Your task to perform on an android device: Clear the shopping cart on amazon. Image 0: 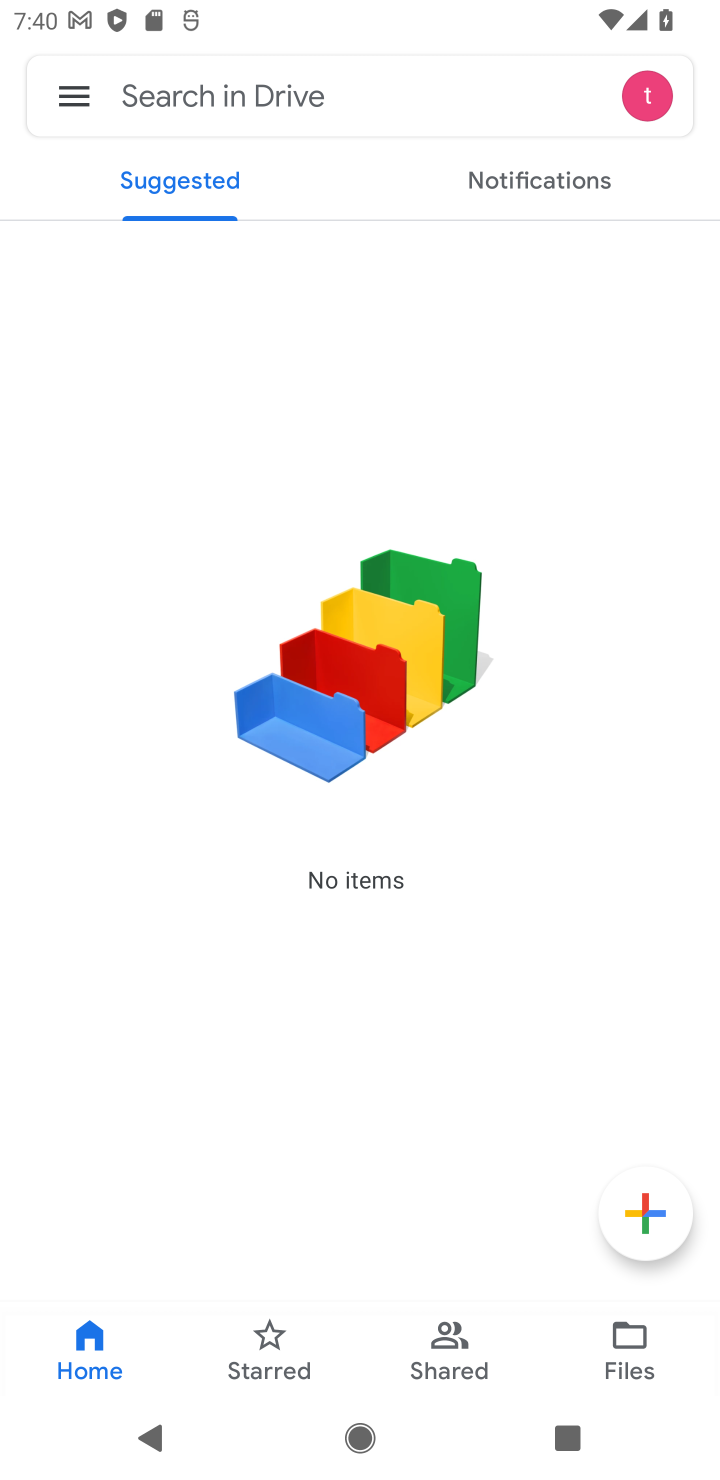
Step 0: press home button
Your task to perform on an android device: Clear the shopping cart on amazon. Image 1: 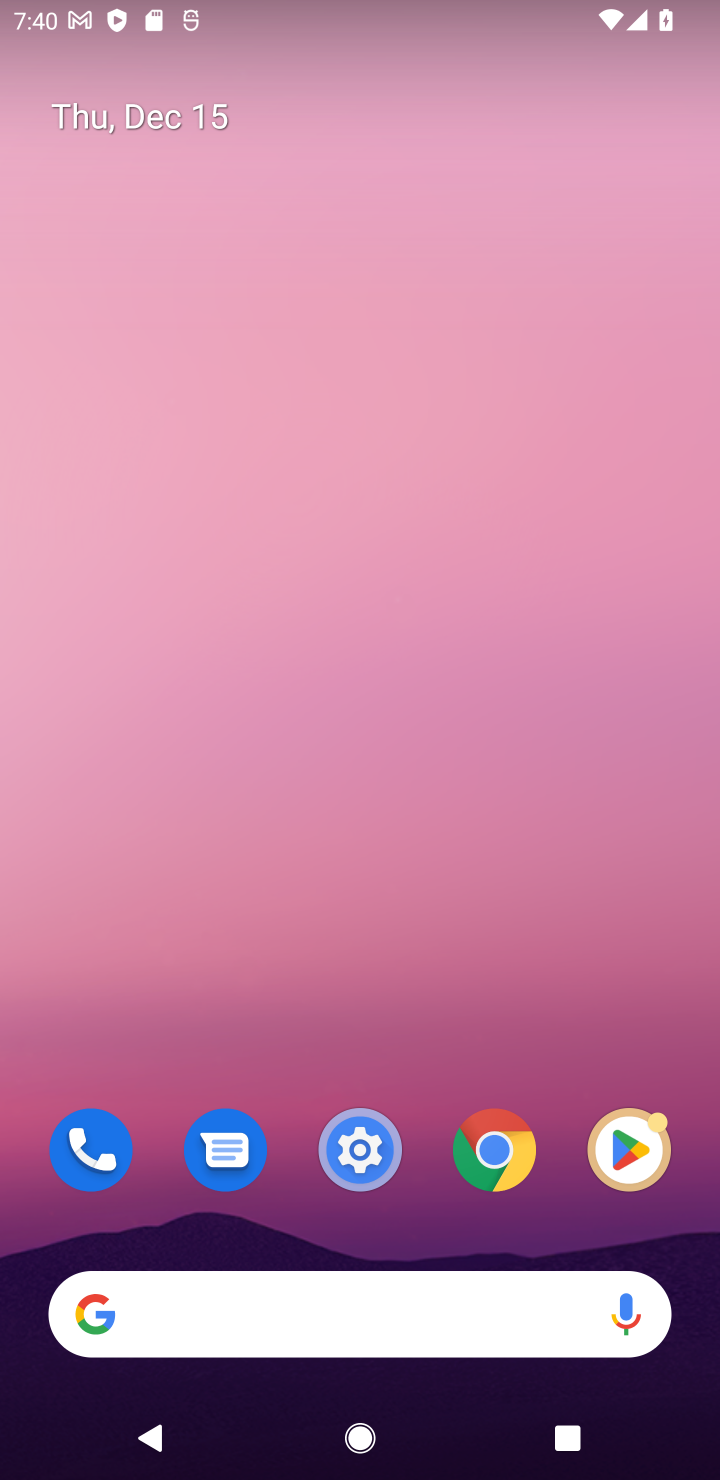
Step 1: click (496, 1143)
Your task to perform on an android device: Clear the shopping cart on amazon. Image 2: 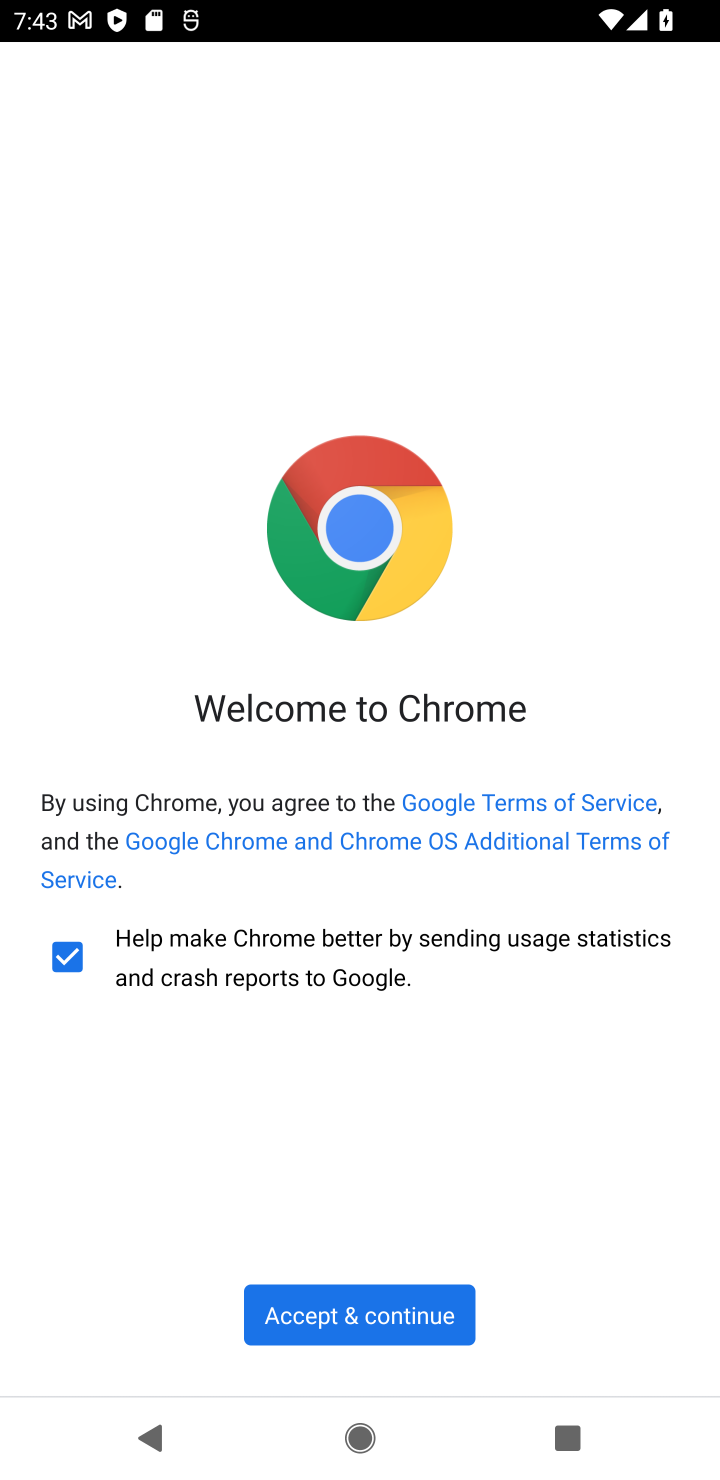
Step 2: click (380, 1320)
Your task to perform on an android device: Clear the shopping cart on amazon. Image 3: 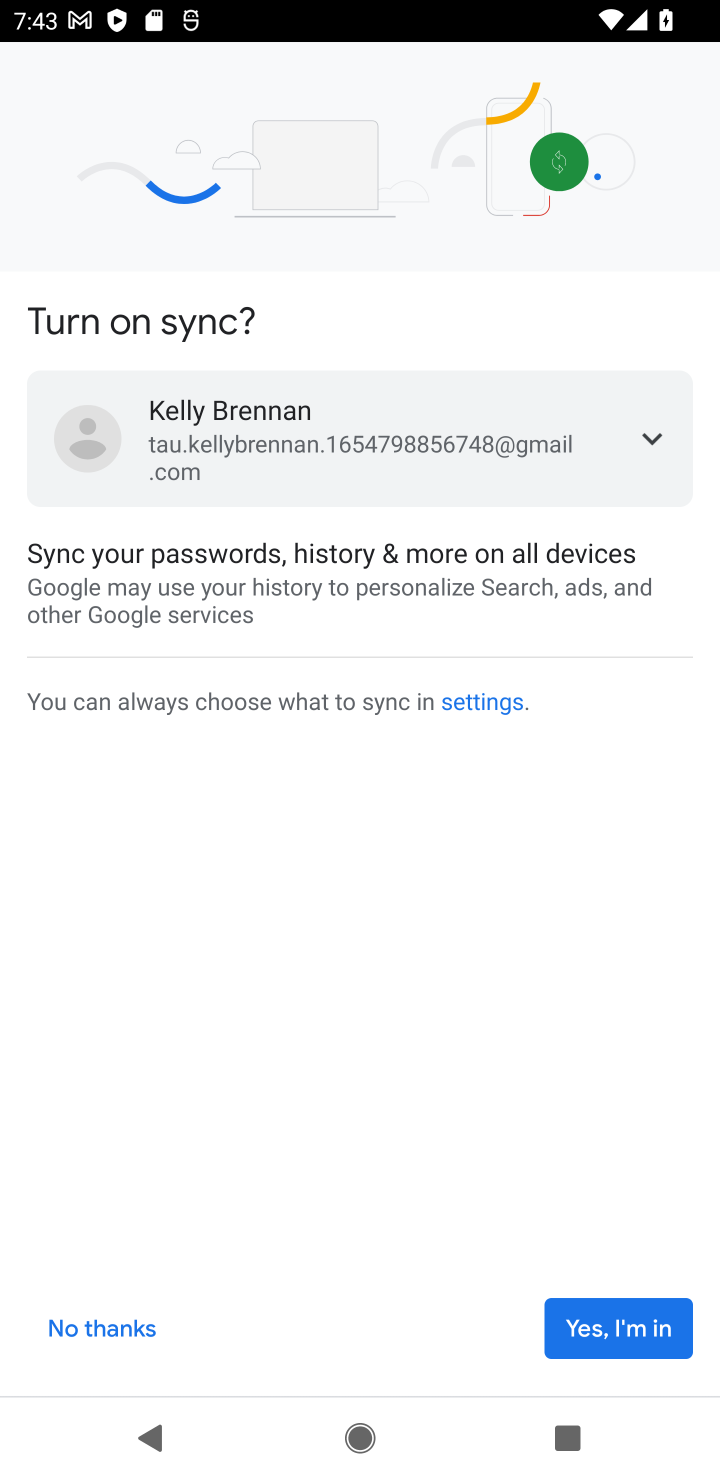
Step 3: click (605, 1331)
Your task to perform on an android device: Clear the shopping cart on amazon. Image 4: 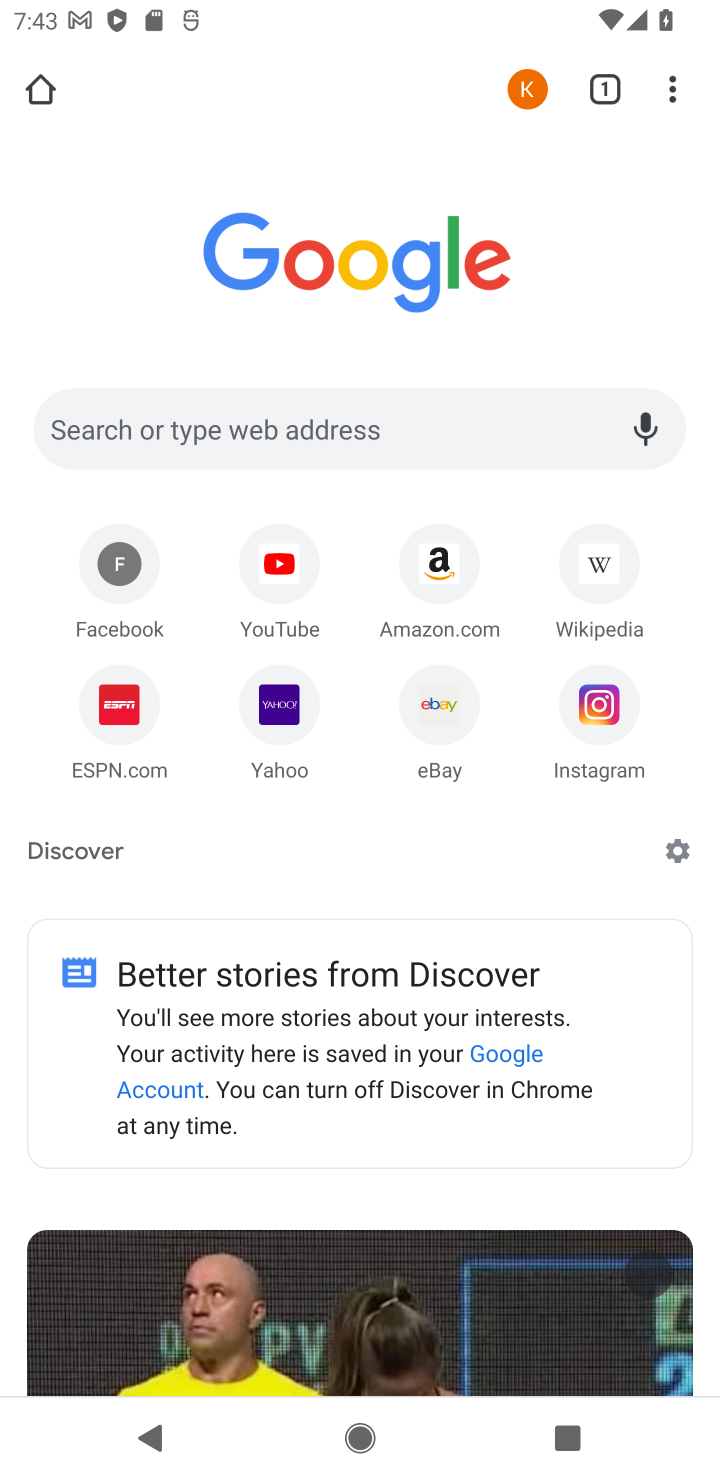
Step 4: click (433, 561)
Your task to perform on an android device: Clear the shopping cart on amazon. Image 5: 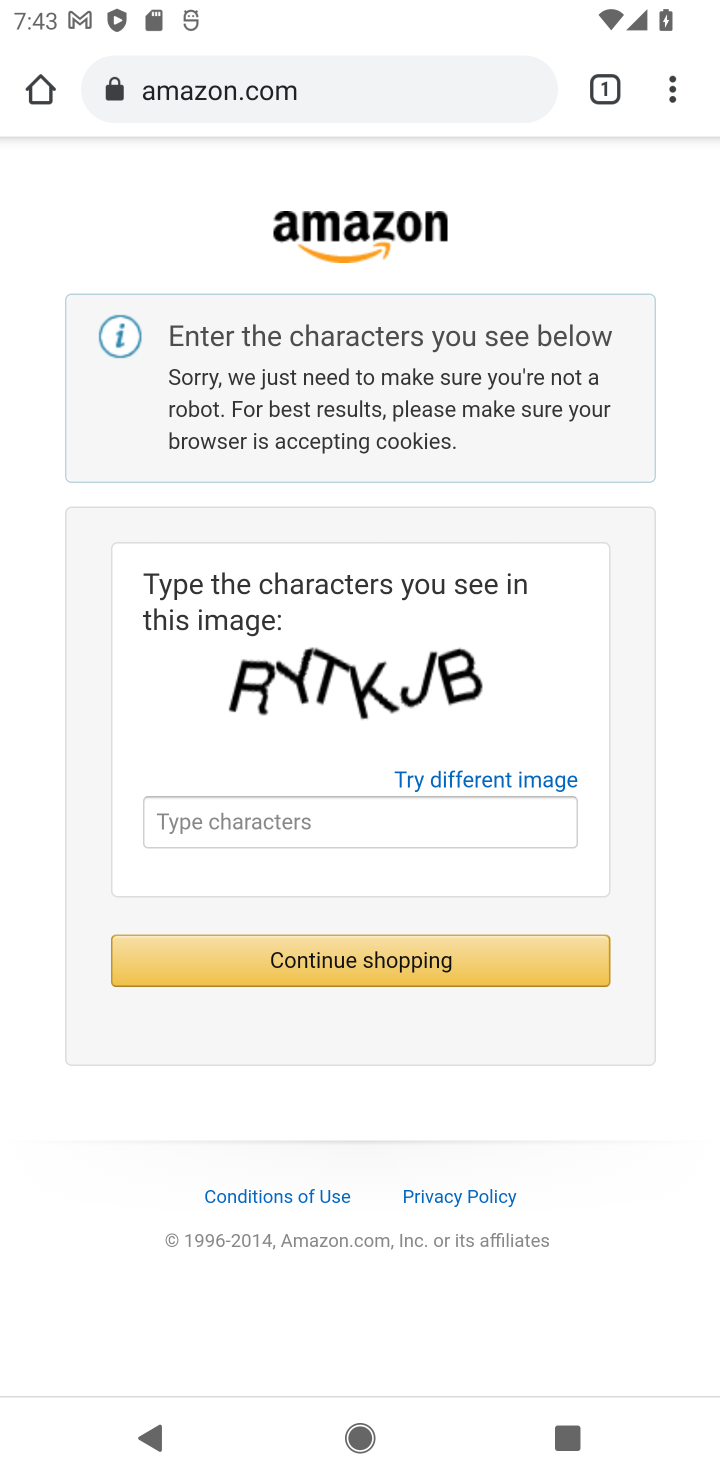
Step 5: click (364, 822)
Your task to perform on an android device: Clear the shopping cart on amazon. Image 6: 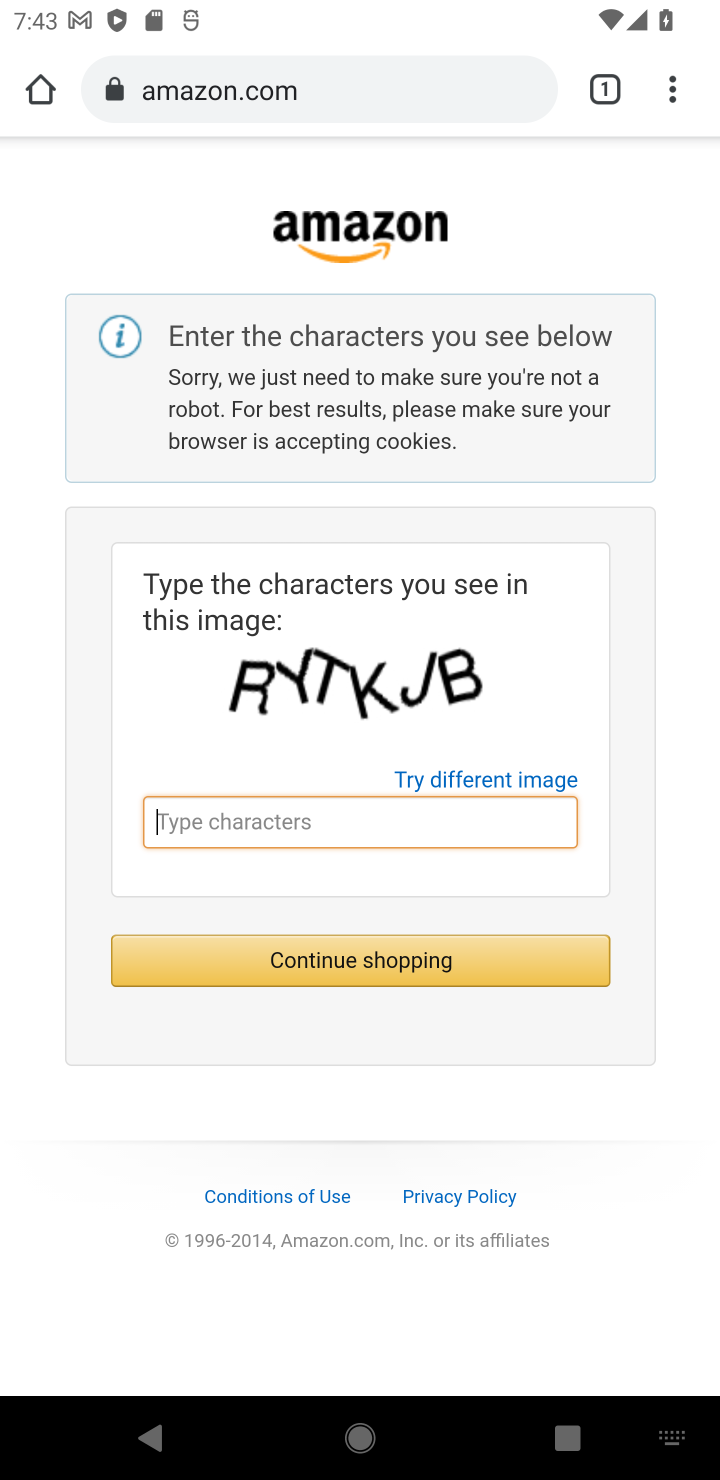
Step 6: type "RYTKJB"
Your task to perform on an android device: Clear the shopping cart on amazon. Image 7: 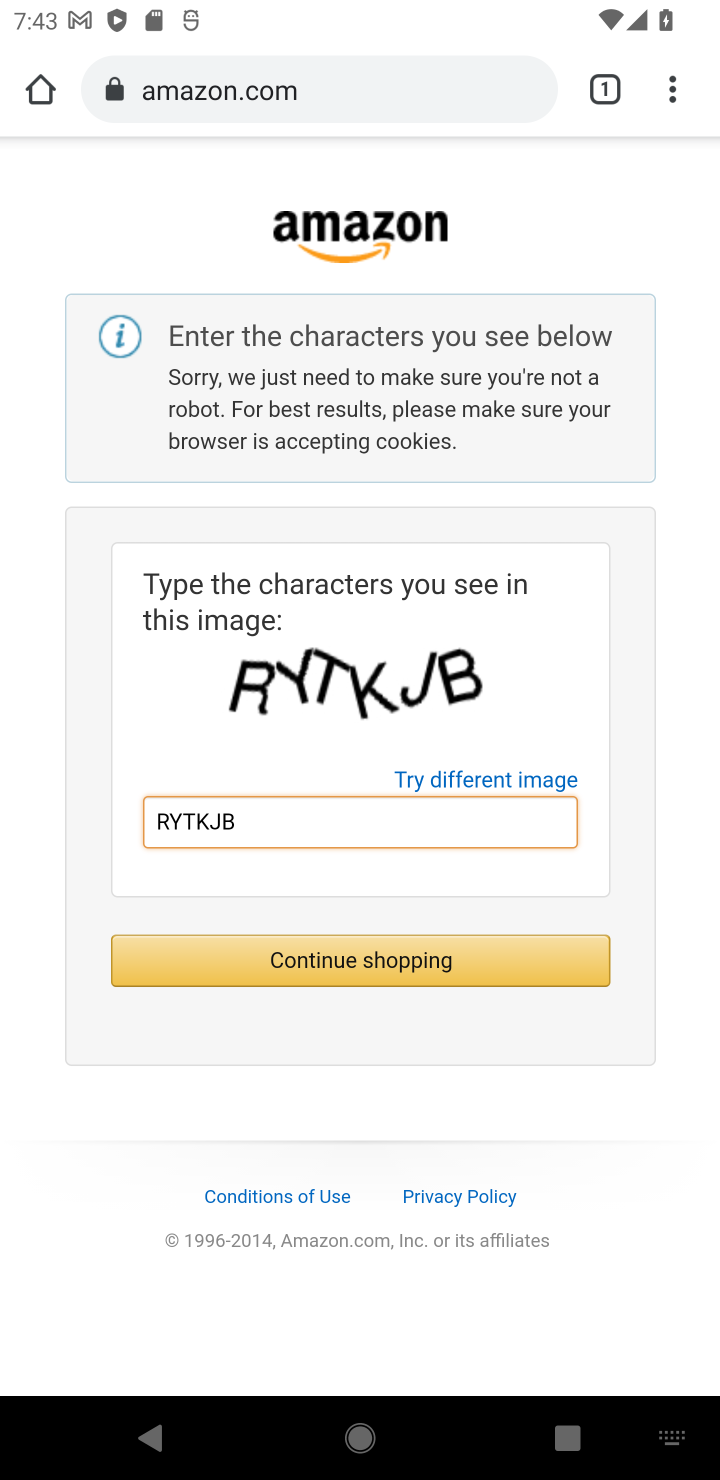
Step 7: click (368, 950)
Your task to perform on an android device: Clear the shopping cart on amazon. Image 8: 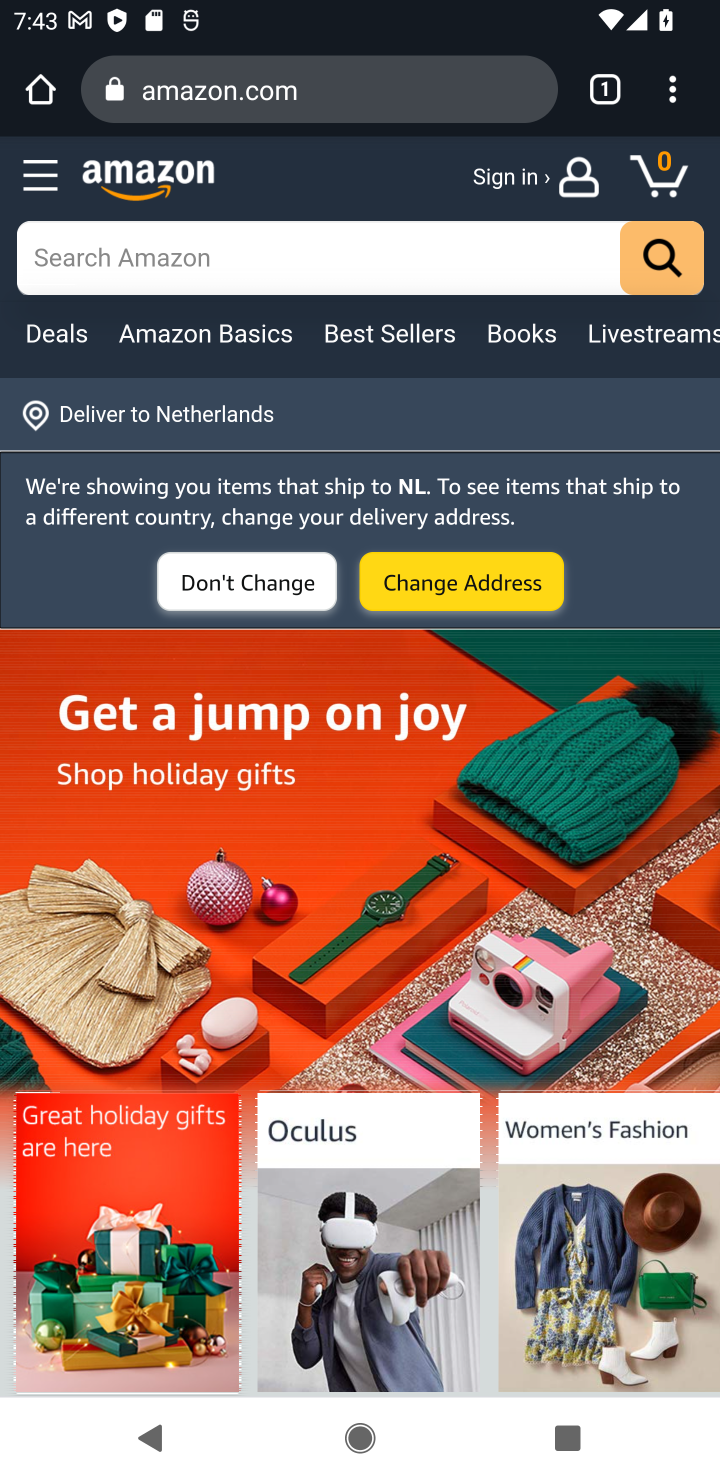
Step 8: task complete